Your task to perform on an android device: Open Chrome and go to the settings page Image 0: 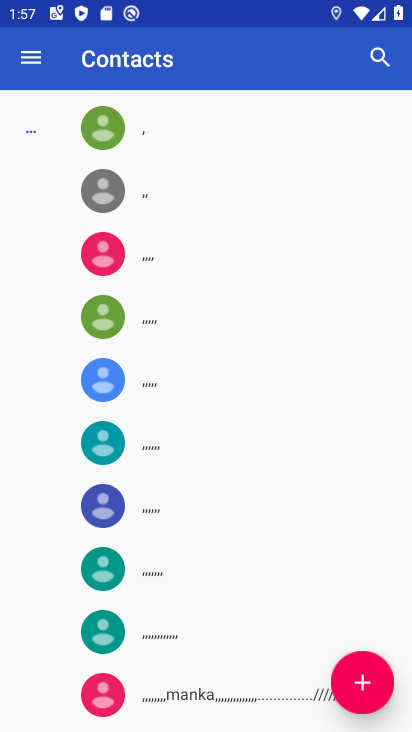
Step 0: press home button
Your task to perform on an android device: Open Chrome and go to the settings page Image 1: 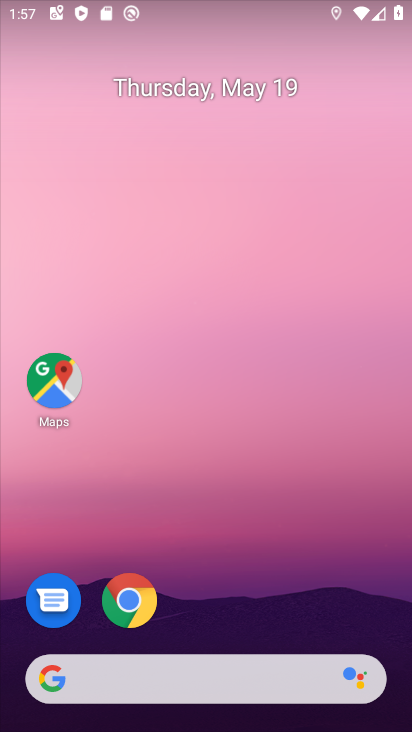
Step 1: click (121, 600)
Your task to perform on an android device: Open Chrome and go to the settings page Image 2: 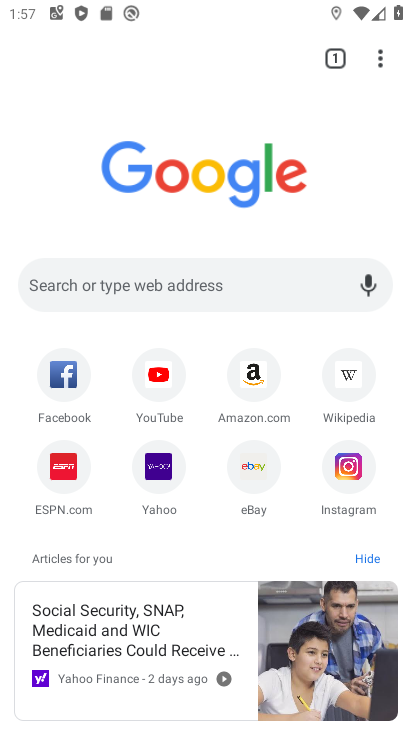
Step 2: click (378, 63)
Your task to perform on an android device: Open Chrome and go to the settings page Image 3: 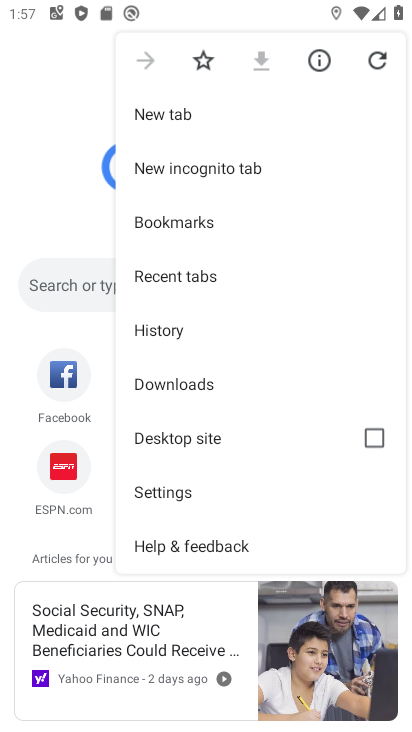
Step 3: click (192, 501)
Your task to perform on an android device: Open Chrome and go to the settings page Image 4: 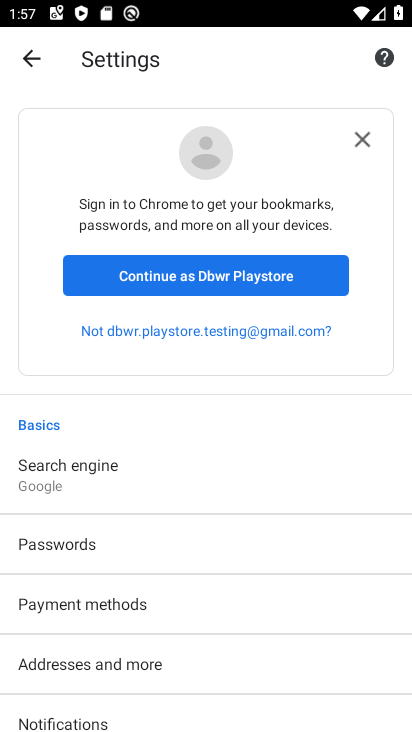
Step 4: task complete